Your task to perform on an android device: Open Chrome and go to settings Image 0: 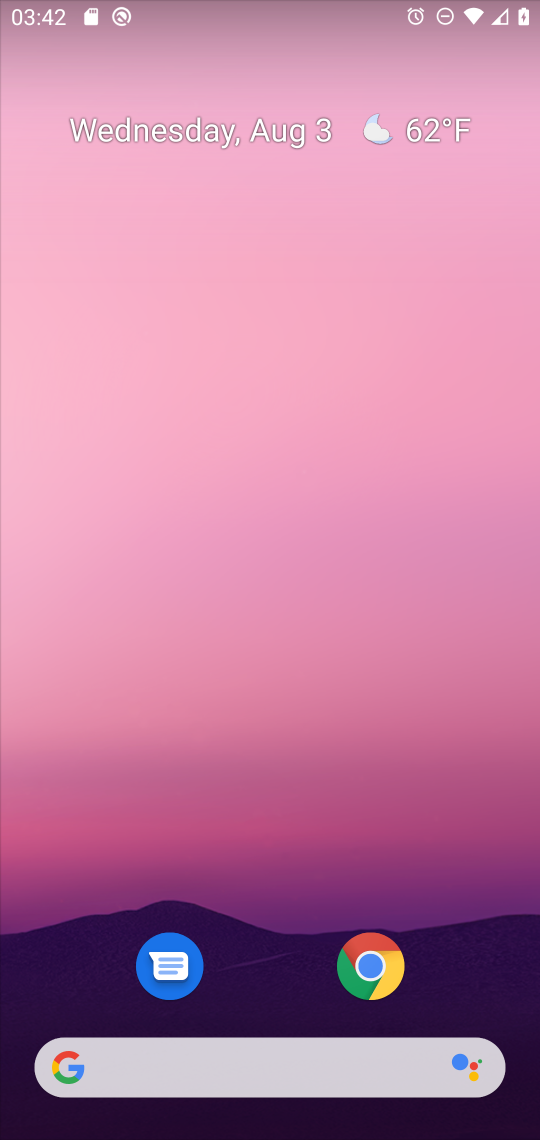
Step 0: click (357, 968)
Your task to perform on an android device: Open Chrome and go to settings Image 1: 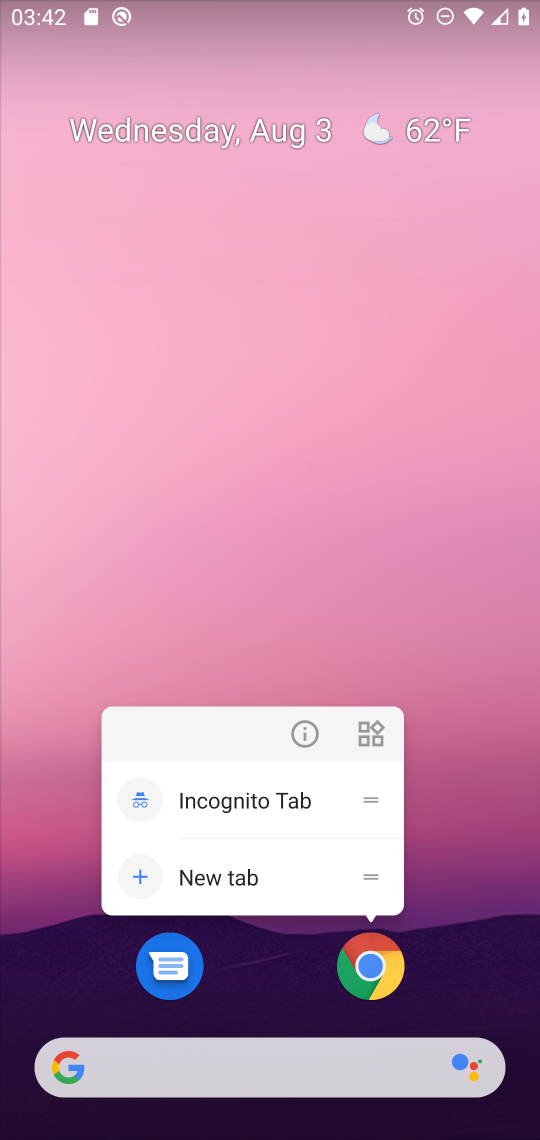
Step 1: click (357, 968)
Your task to perform on an android device: Open Chrome and go to settings Image 2: 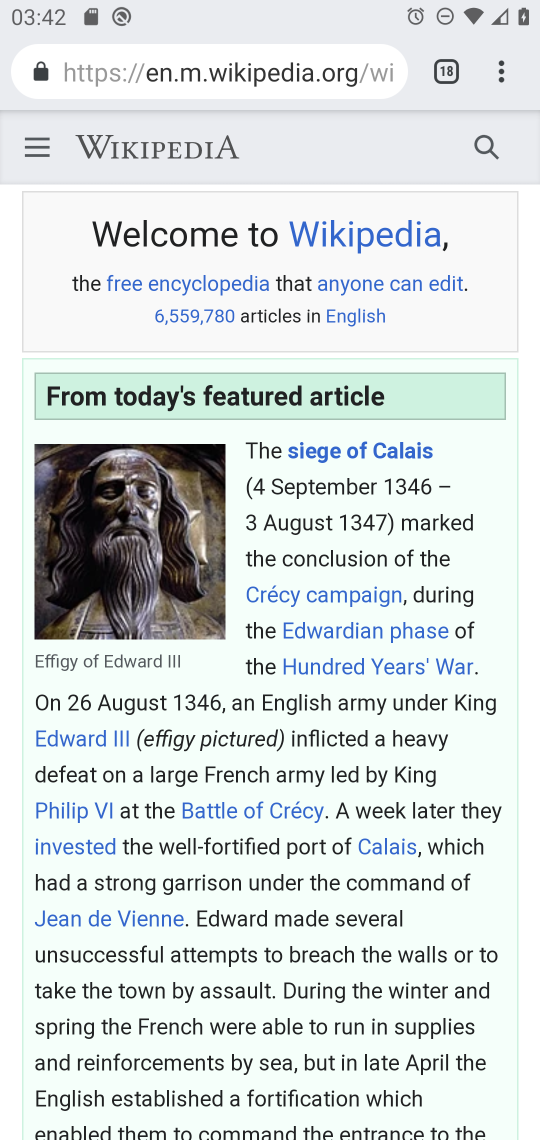
Step 2: click (499, 69)
Your task to perform on an android device: Open Chrome and go to settings Image 3: 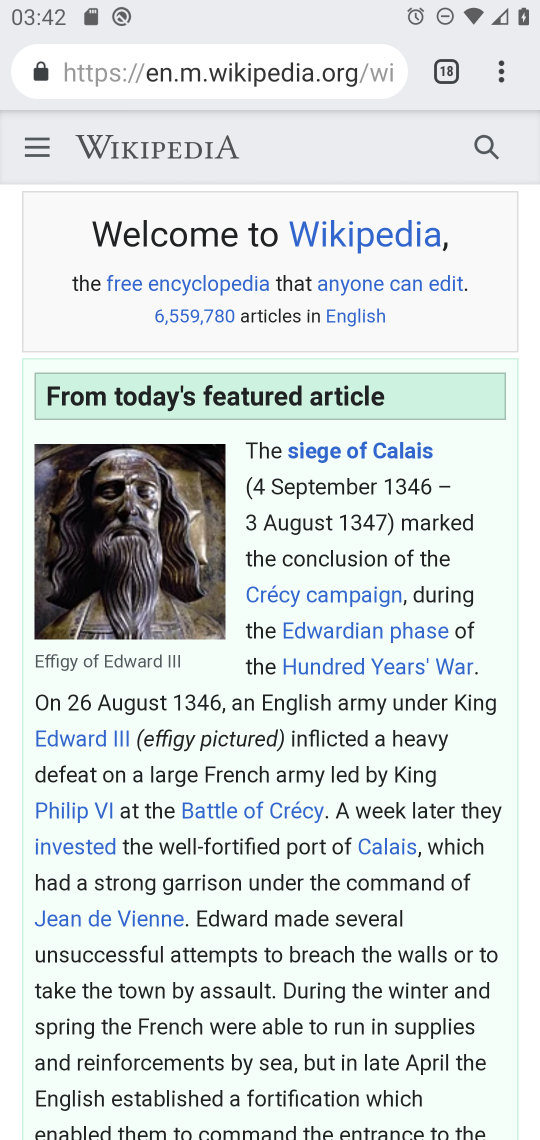
Step 3: click (499, 81)
Your task to perform on an android device: Open Chrome and go to settings Image 4: 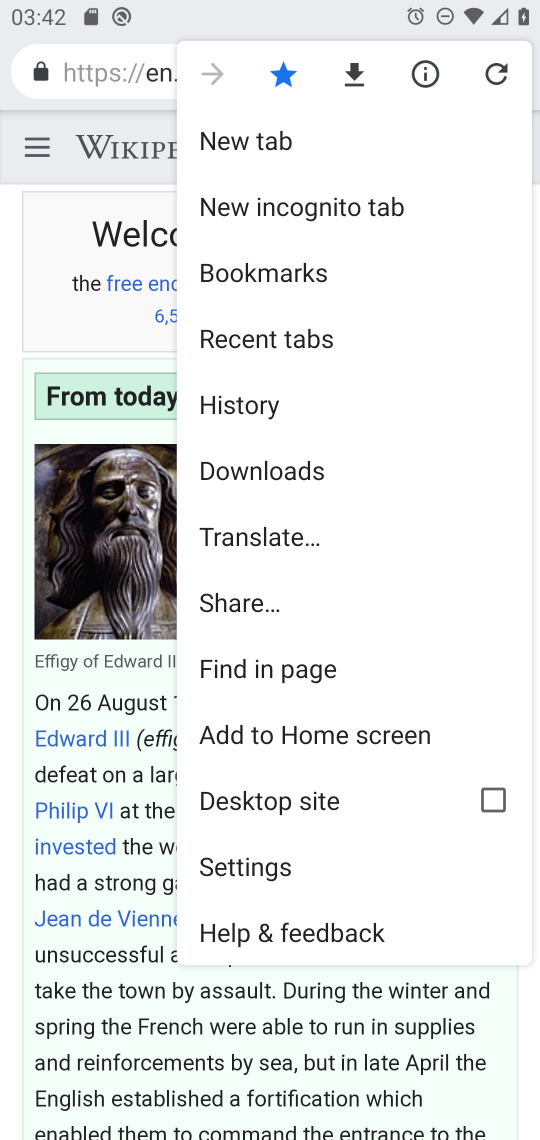
Step 4: click (327, 867)
Your task to perform on an android device: Open Chrome and go to settings Image 5: 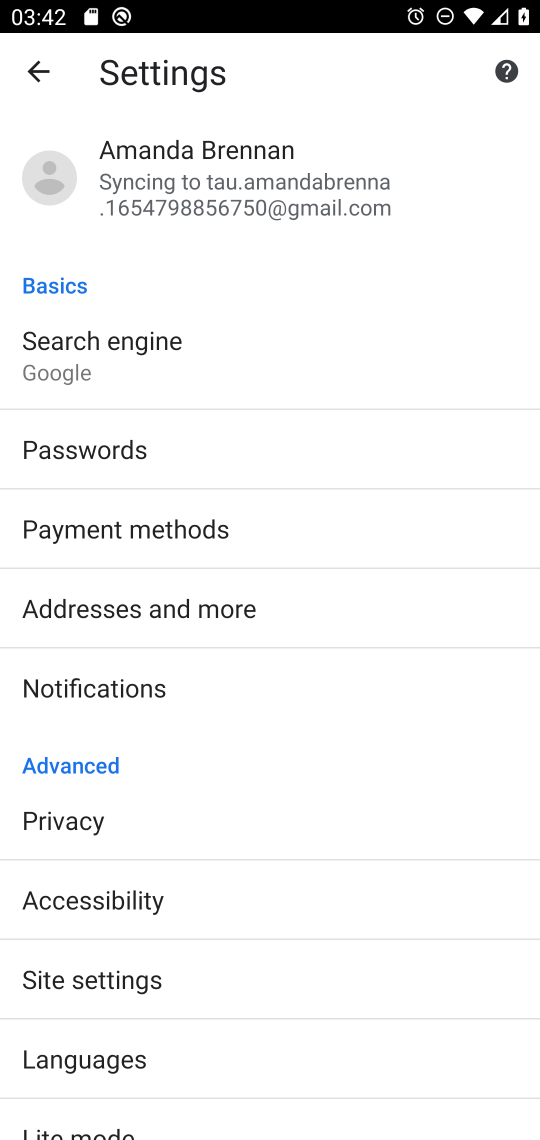
Step 5: task complete